Your task to perform on an android device: change the clock display to show seconds Image 0: 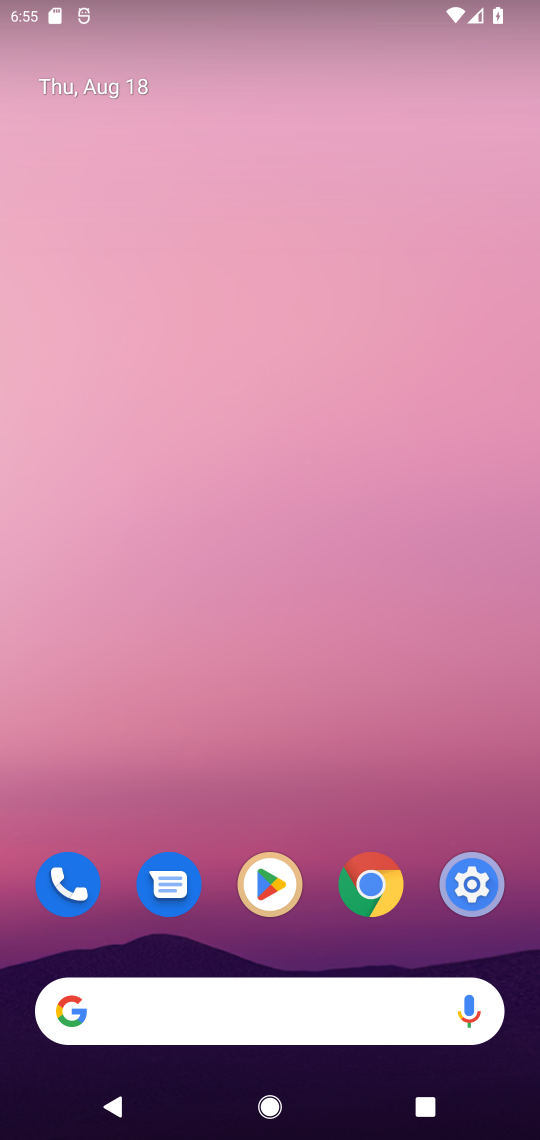
Step 0: drag from (262, 944) to (352, 160)
Your task to perform on an android device: change the clock display to show seconds Image 1: 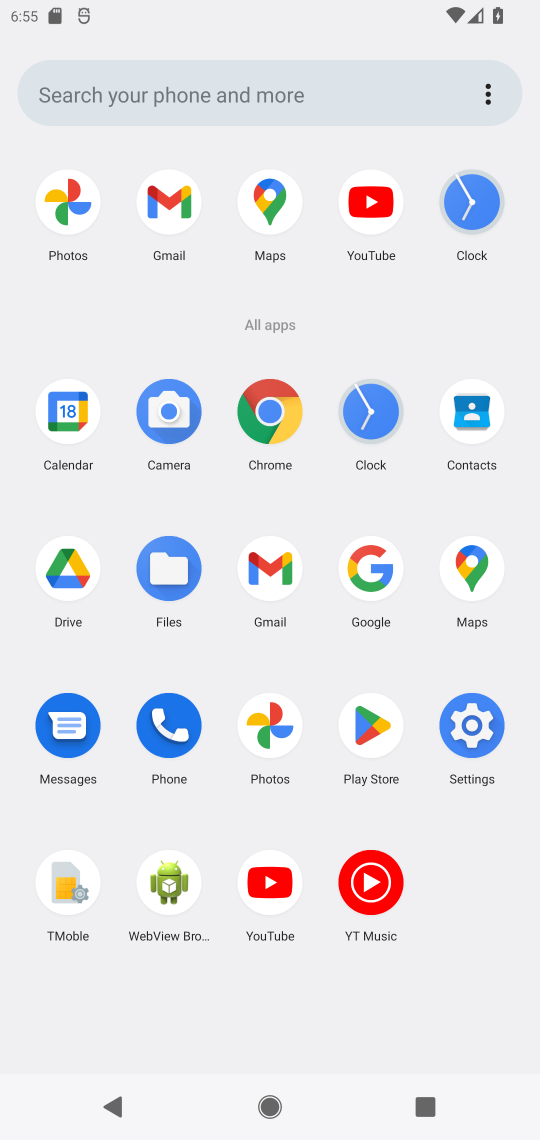
Step 1: click (500, 206)
Your task to perform on an android device: change the clock display to show seconds Image 2: 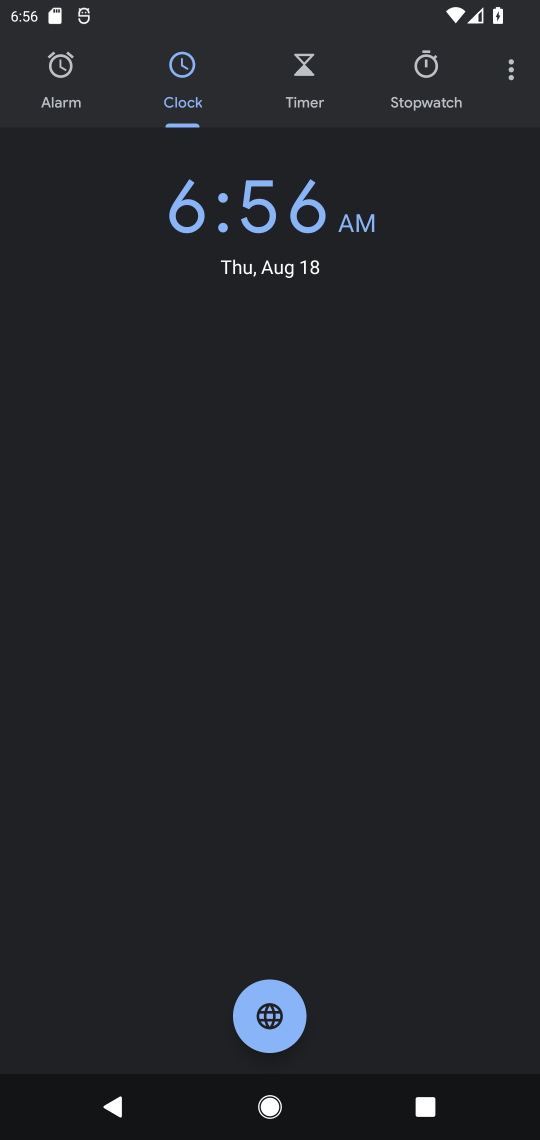
Step 2: click (522, 70)
Your task to perform on an android device: change the clock display to show seconds Image 3: 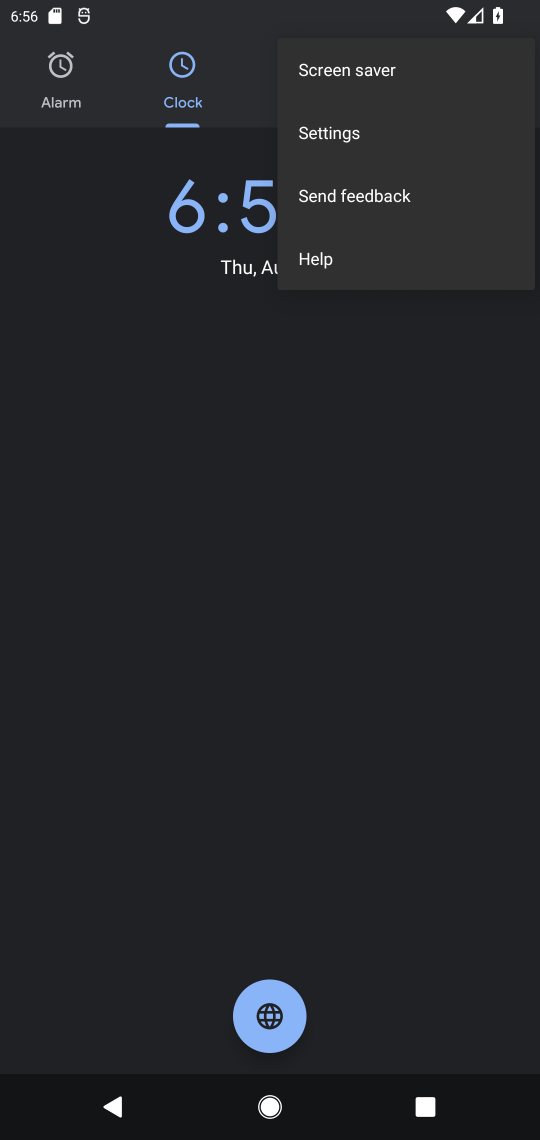
Step 3: click (398, 136)
Your task to perform on an android device: change the clock display to show seconds Image 4: 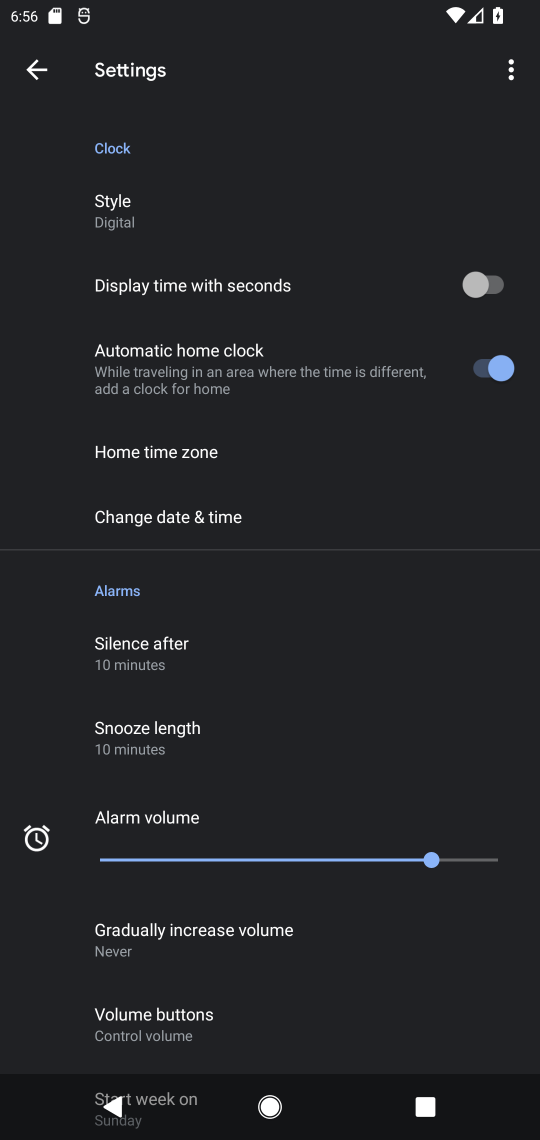
Step 4: click (492, 295)
Your task to perform on an android device: change the clock display to show seconds Image 5: 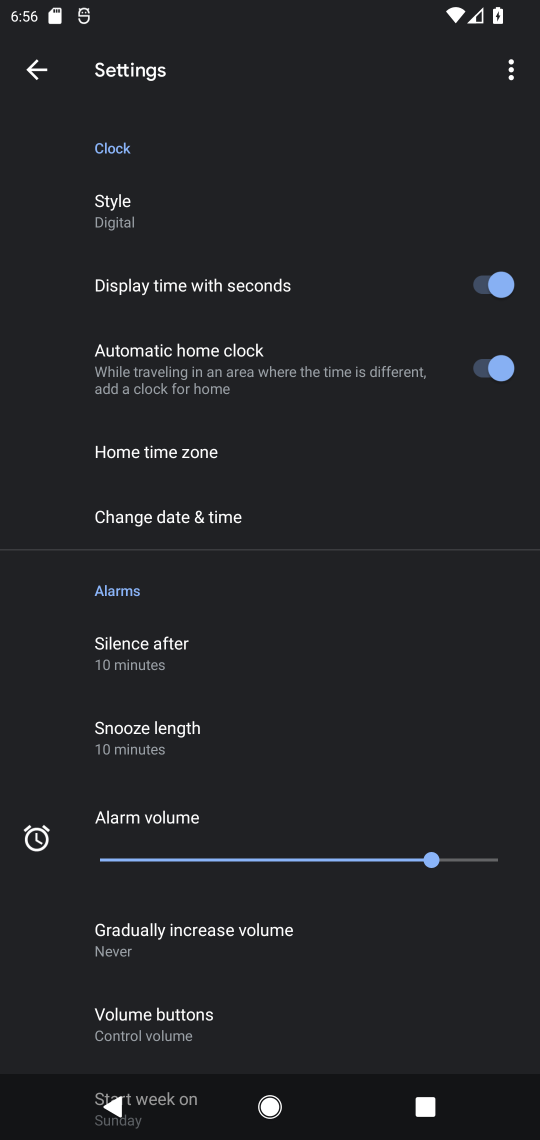
Step 5: task complete